Your task to perform on an android device: change the clock display to digital Image 0: 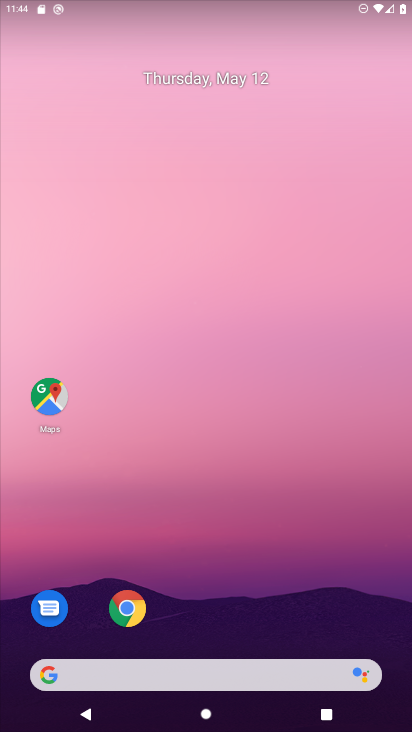
Step 0: drag from (225, 619) to (208, 109)
Your task to perform on an android device: change the clock display to digital Image 1: 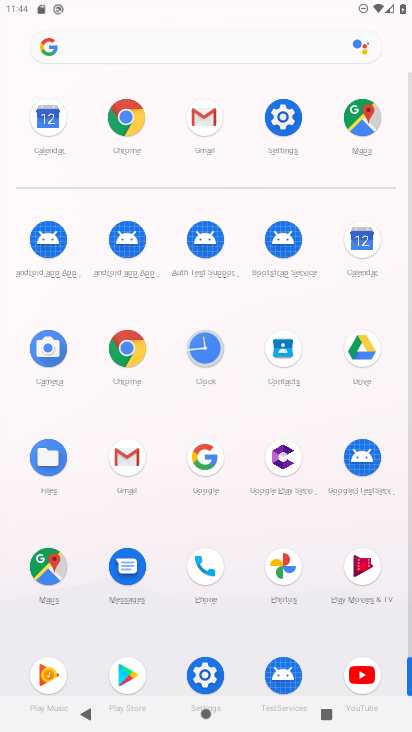
Step 1: click (204, 352)
Your task to perform on an android device: change the clock display to digital Image 2: 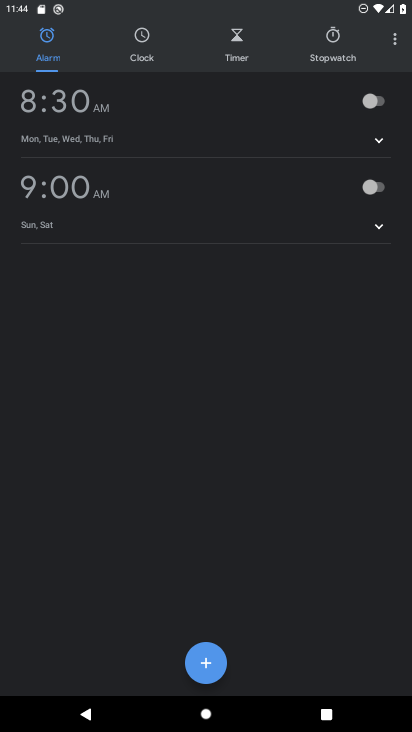
Step 2: click (391, 43)
Your task to perform on an android device: change the clock display to digital Image 3: 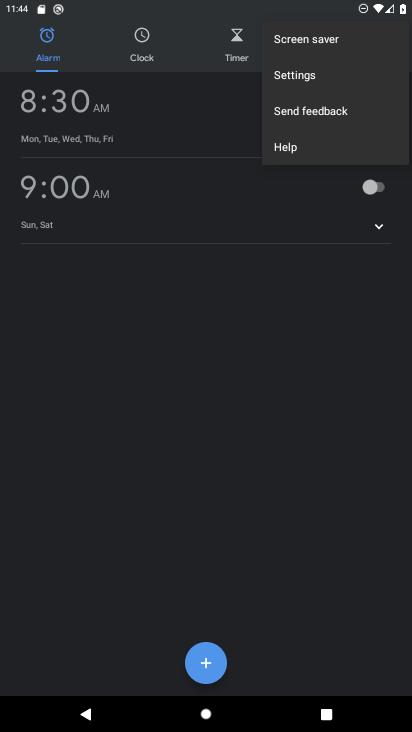
Step 3: click (348, 84)
Your task to perform on an android device: change the clock display to digital Image 4: 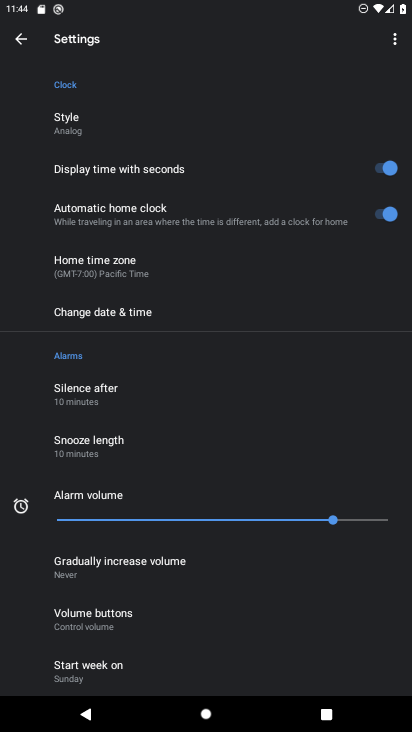
Step 4: click (114, 125)
Your task to perform on an android device: change the clock display to digital Image 5: 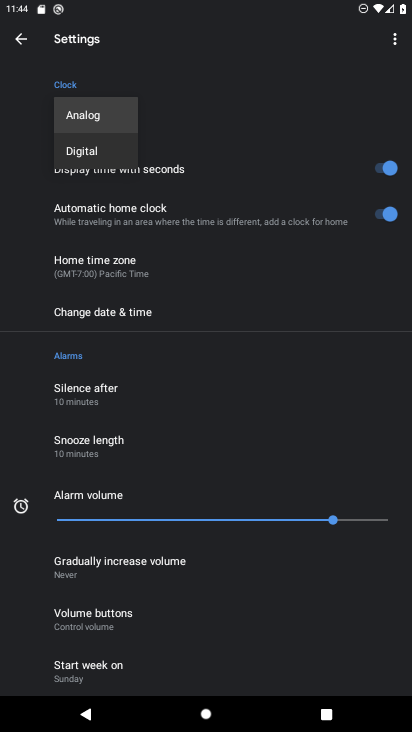
Step 5: click (99, 141)
Your task to perform on an android device: change the clock display to digital Image 6: 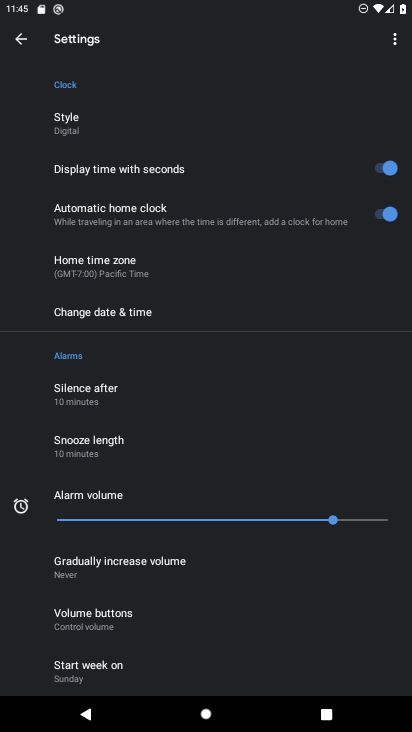
Step 6: task complete